Your task to perform on an android device: check data usage Image 0: 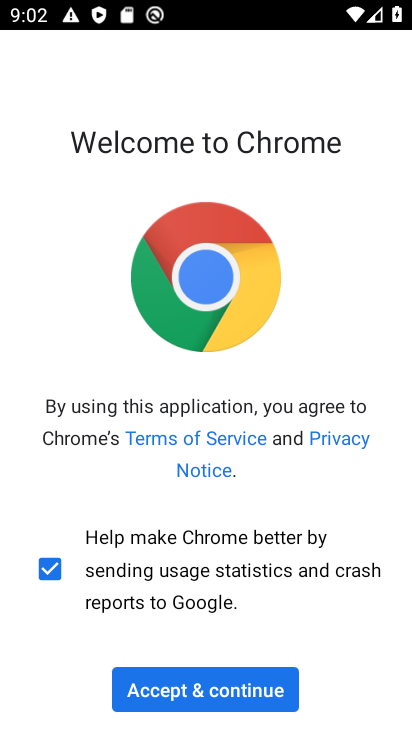
Step 0: press home button
Your task to perform on an android device: check data usage Image 1: 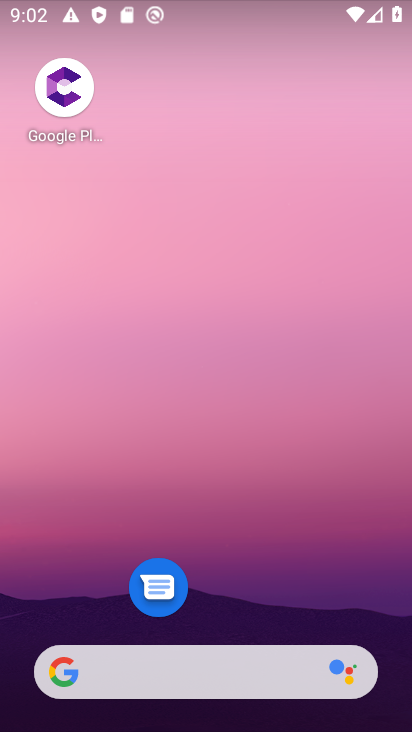
Step 1: drag from (238, 603) to (238, 14)
Your task to perform on an android device: check data usage Image 2: 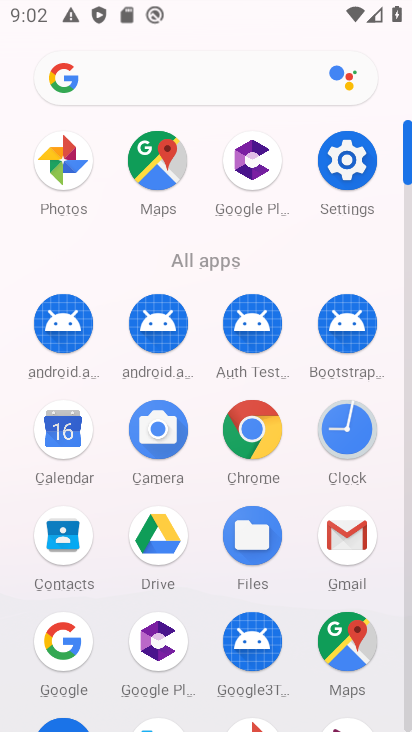
Step 2: click (366, 168)
Your task to perform on an android device: check data usage Image 3: 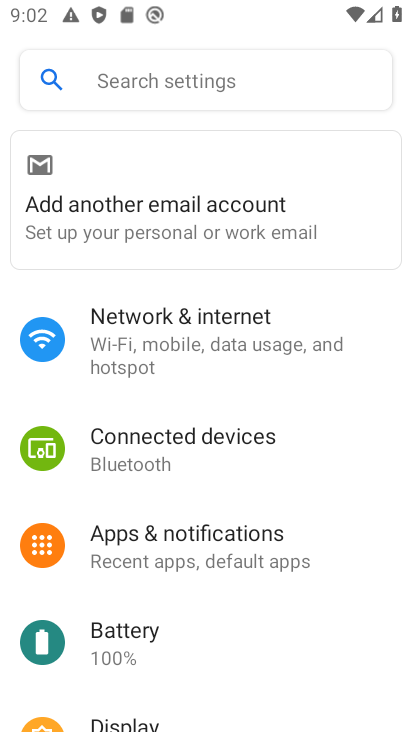
Step 3: click (96, 306)
Your task to perform on an android device: check data usage Image 4: 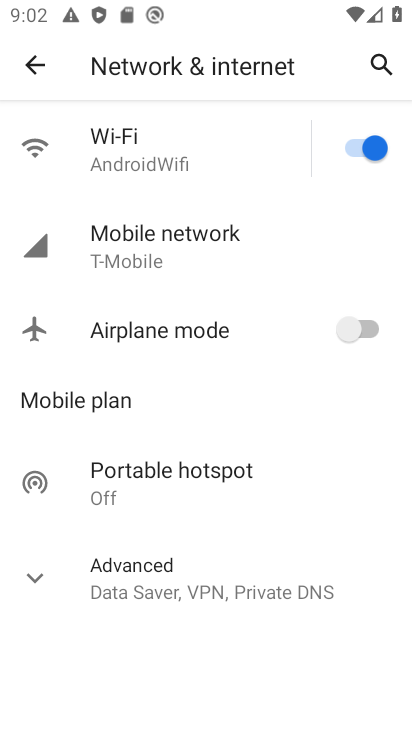
Step 4: click (163, 557)
Your task to perform on an android device: check data usage Image 5: 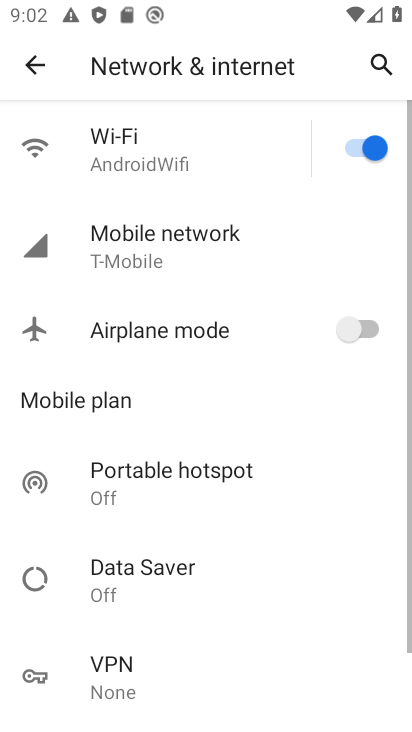
Step 5: click (189, 254)
Your task to perform on an android device: check data usage Image 6: 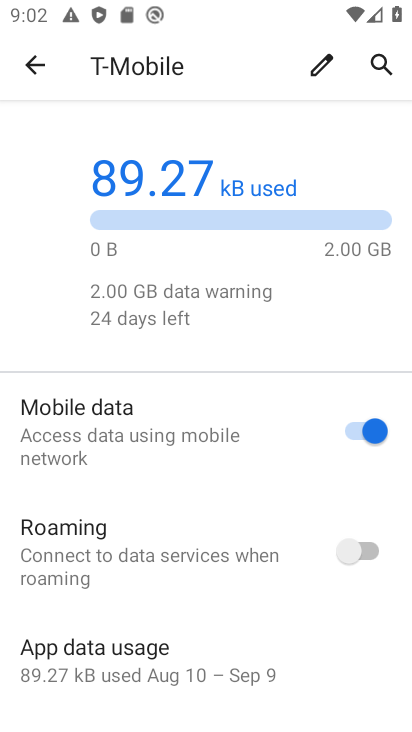
Step 6: task complete